Your task to perform on an android device: toggle wifi Image 0: 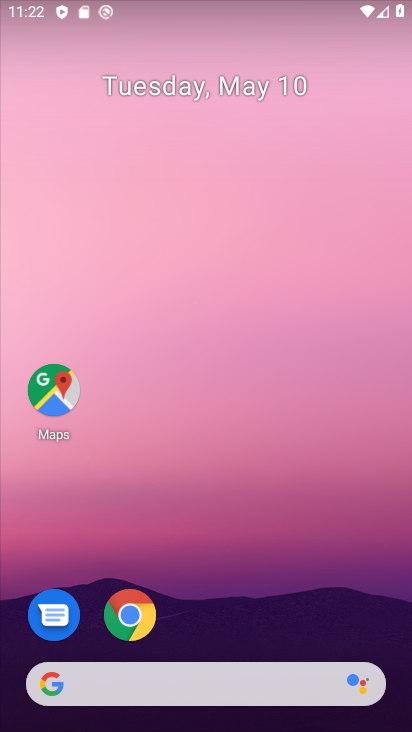
Step 0: click (190, 20)
Your task to perform on an android device: toggle wifi Image 1: 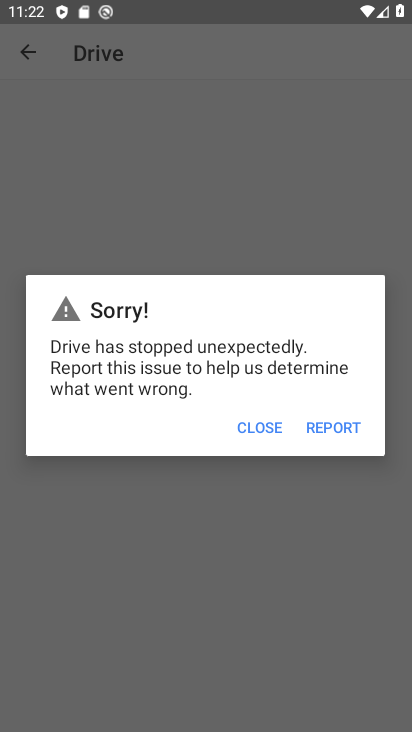
Step 1: press back button
Your task to perform on an android device: toggle wifi Image 2: 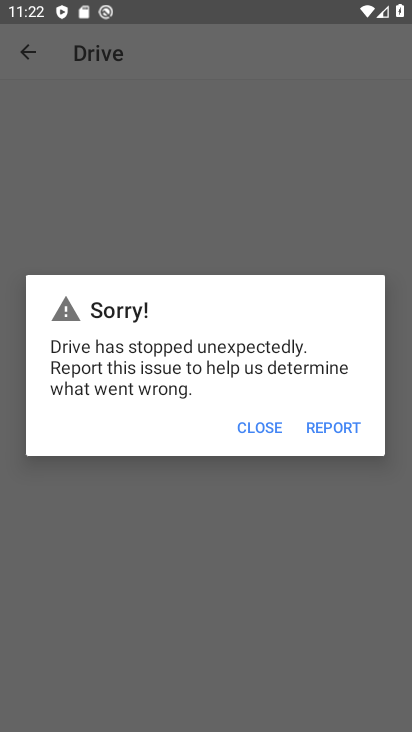
Step 2: press back button
Your task to perform on an android device: toggle wifi Image 3: 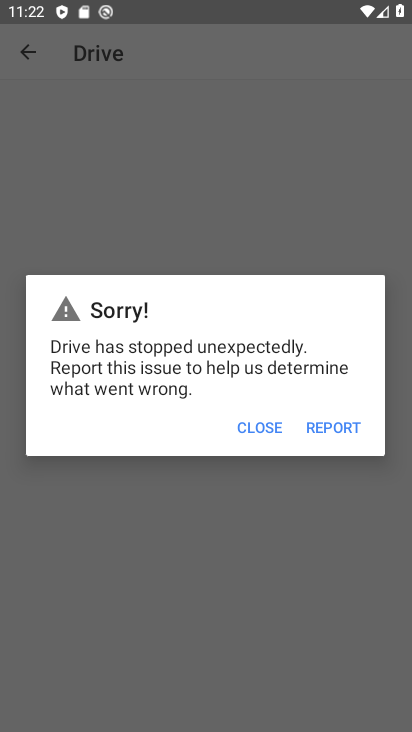
Step 3: press home button
Your task to perform on an android device: toggle wifi Image 4: 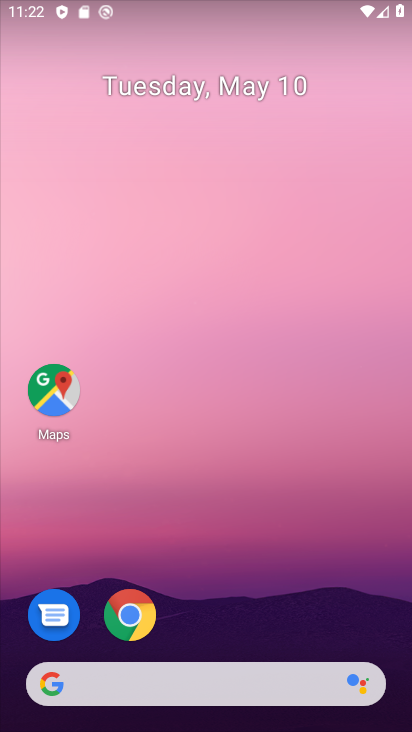
Step 4: drag from (295, 607) to (238, 4)
Your task to perform on an android device: toggle wifi Image 5: 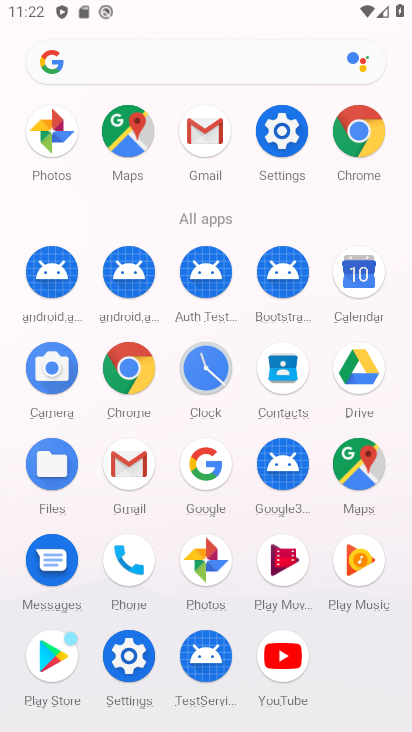
Step 5: click (278, 126)
Your task to perform on an android device: toggle wifi Image 6: 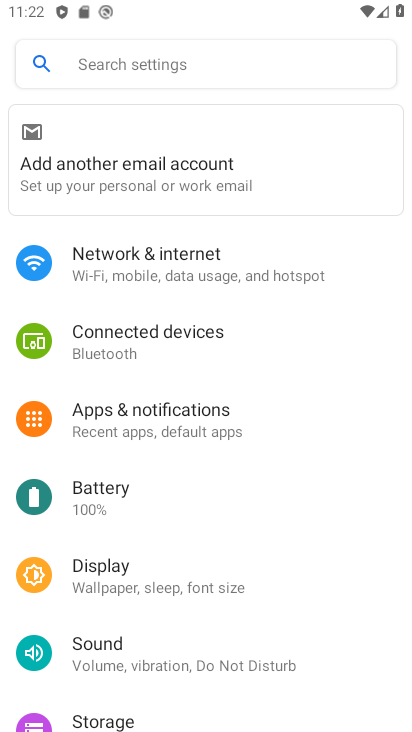
Step 6: click (211, 268)
Your task to perform on an android device: toggle wifi Image 7: 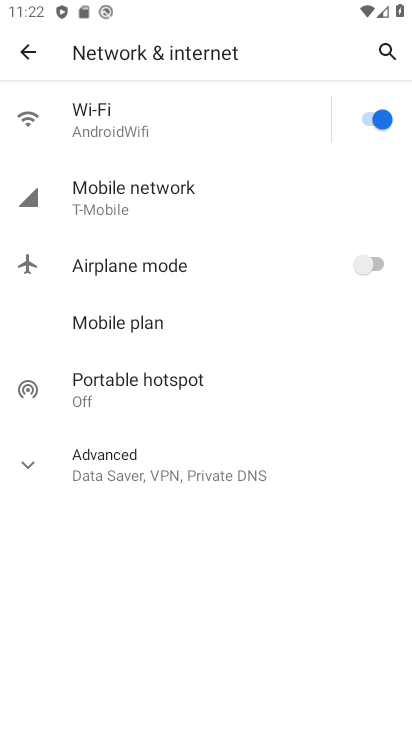
Step 7: click (366, 109)
Your task to perform on an android device: toggle wifi Image 8: 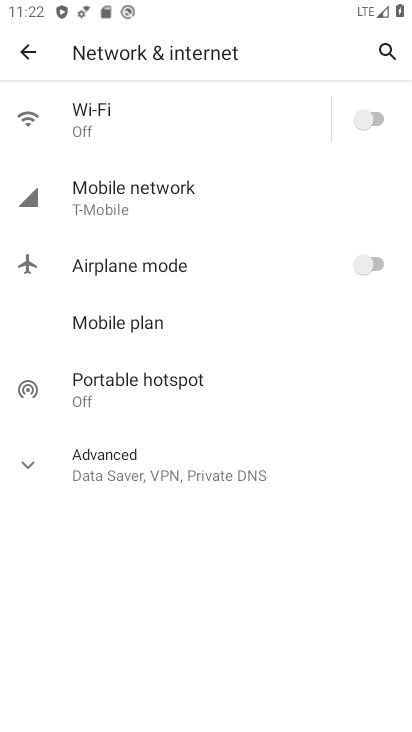
Step 8: task complete